Your task to perform on an android device: Open calendar and show me the third week of next month Image 0: 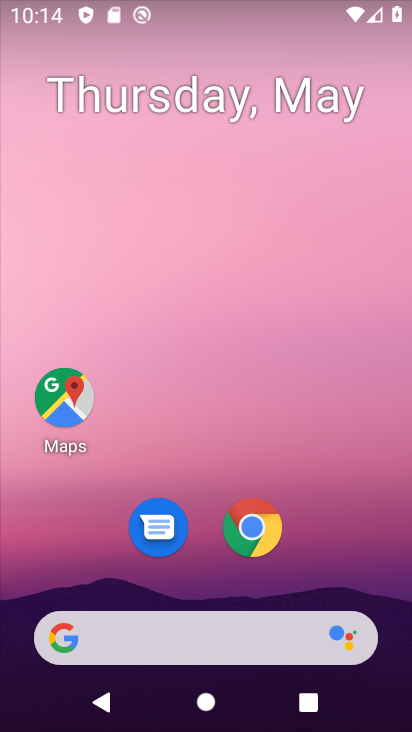
Step 0: drag from (220, 719) to (204, 6)
Your task to perform on an android device: Open calendar and show me the third week of next month Image 1: 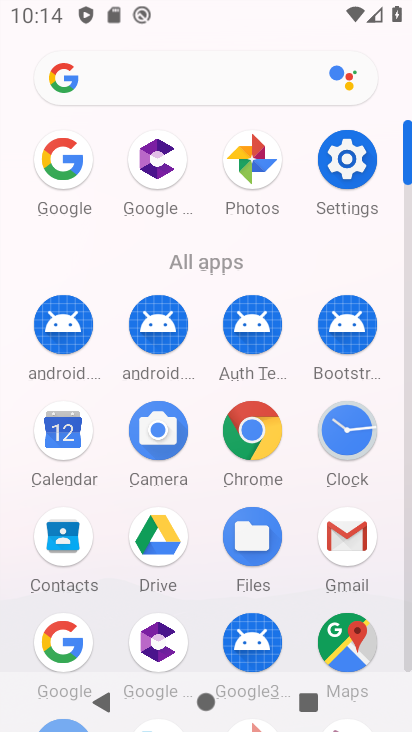
Step 1: click (59, 436)
Your task to perform on an android device: Open calendar and show me the third week of next month Image 2: 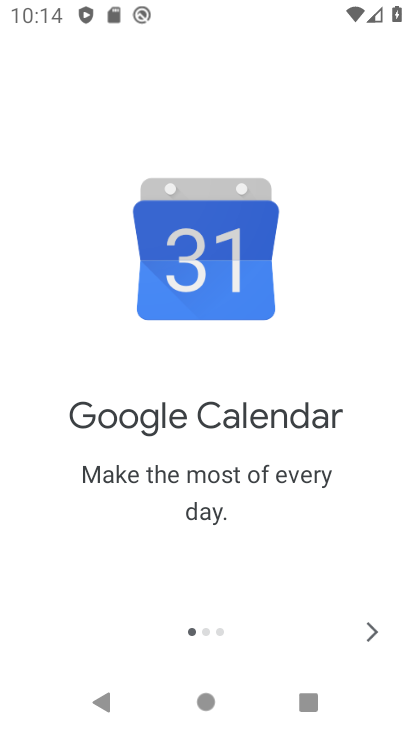
Step 2: click (370, 630)
Your task to perform on an android device: Open calendar and show me the third week of next month Image 3: 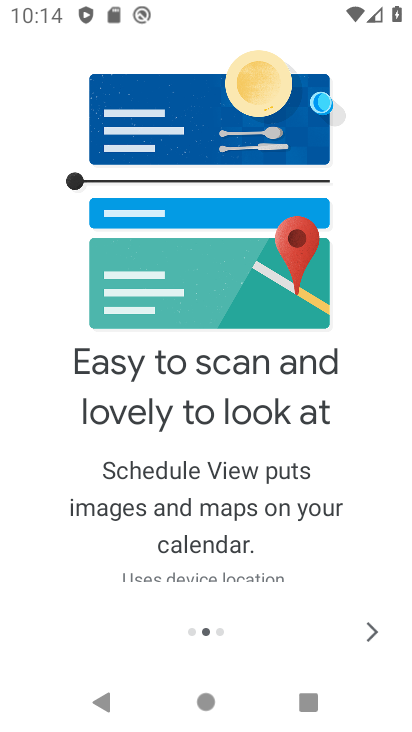
Step 3: click (370, 630)
Your task to perform on an android device: Open calendar and show me the third week of next month Image 4: 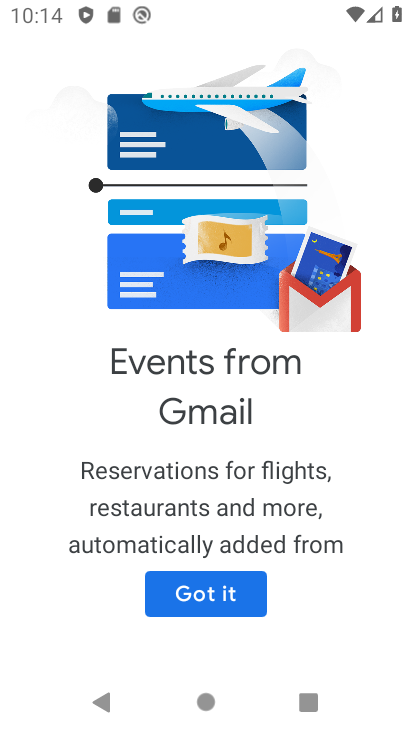
Step 4: click (227, 596)
Your task to perform on an android device: Open calendar and show me the third week of next month Image 5: 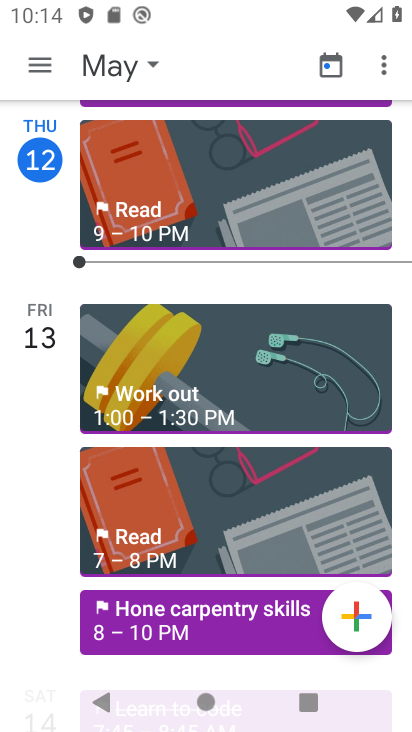
Step 5: click (104, 65)
Your task to perform on an android device: Open calendar and show me the third week of next month Image 6: 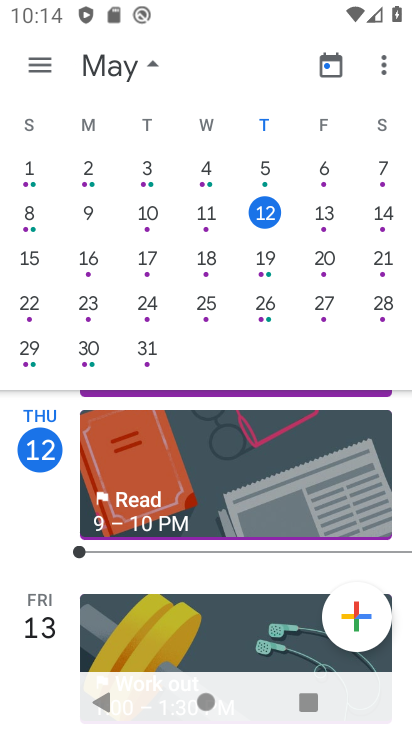
Step 6: drag from (346, 268) to (5, 246)
Your task to perform on an android device: Open calendar and show me the third week of next month Image 7: 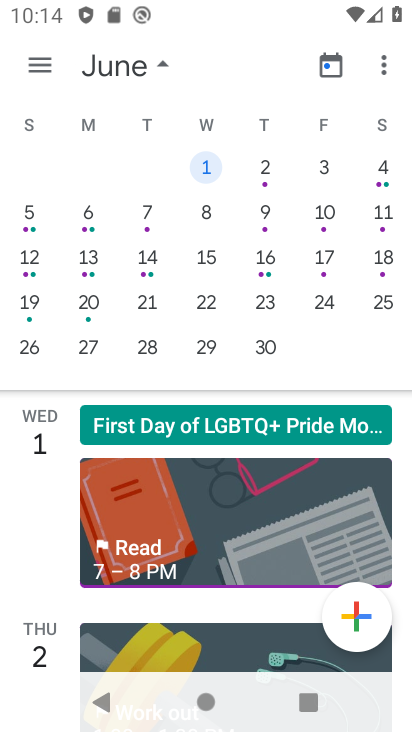
Step 7: click (93, 299)
Your task to perform on an android device: Open calendar and show me the third week of next month Image 8: 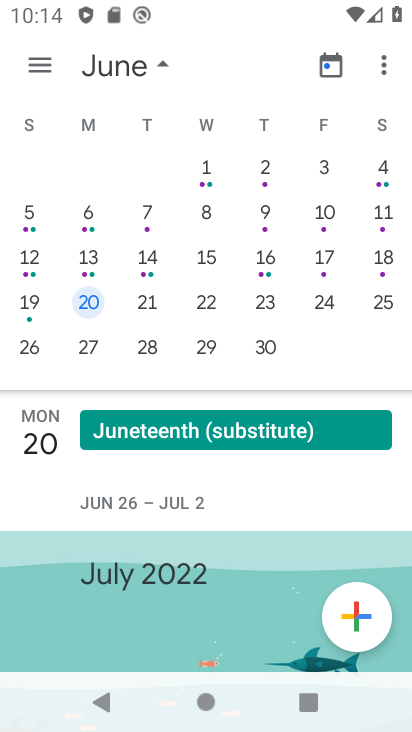
Step 8: click (35, 65)
Your task to perform on an android device: Open calendar and show me the third week of next month Image 9: 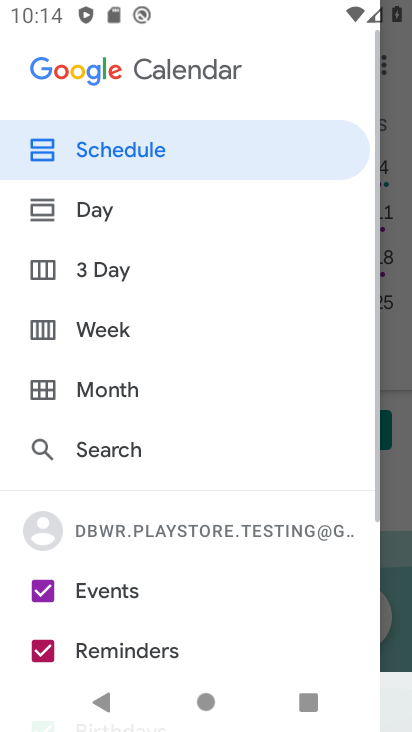
Step 9: click (111, 330)
Your task to perform on an android device: Open calendar and show me the third week of next month Image 10: 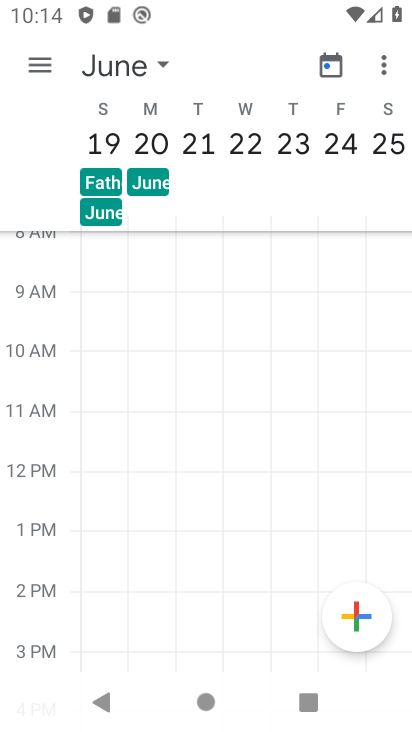
Step 10: task complete